Your task to perform on an android device: change the clock display to show seconds Image 0: 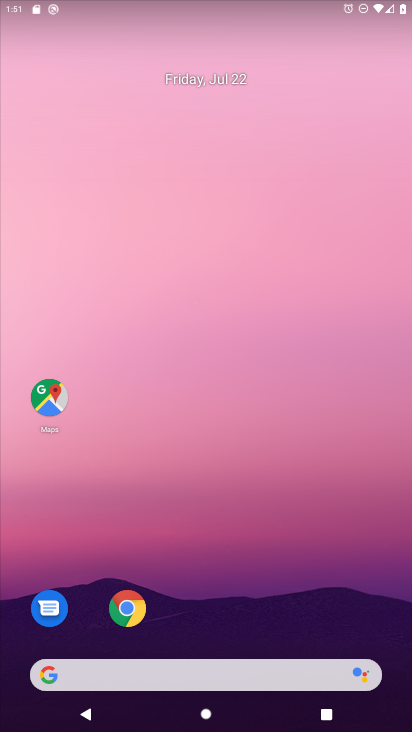
Step 0: drag from (337, 595) to (237, 24)
Your task to perform on an android device: change the clock display to show seconds Image 1: 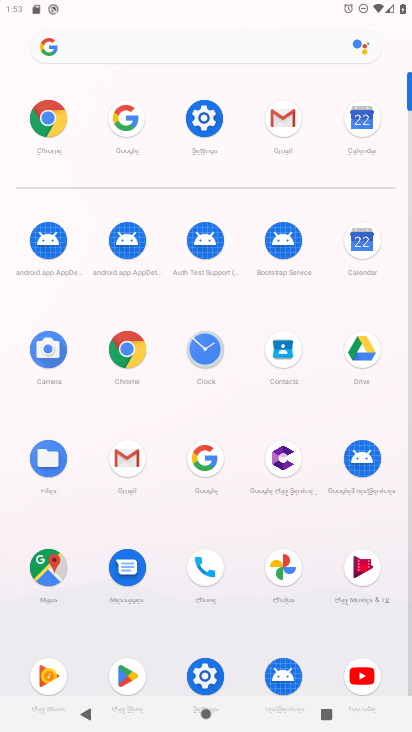
Step 1: click (202, 351)
Your task to perform on an android device: change the clock display to show seconds Image 2: 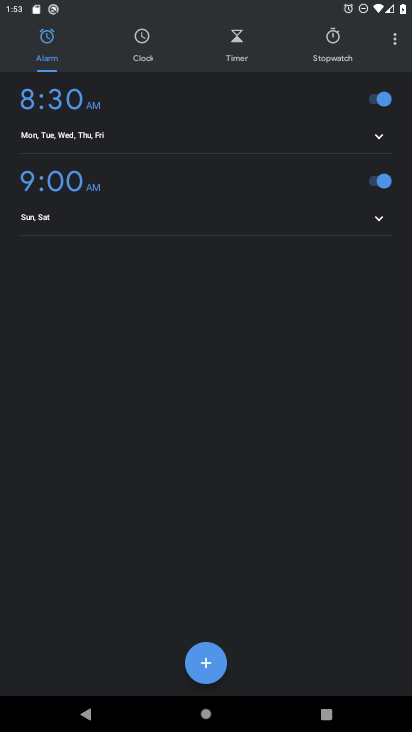
Step 2: click (392, 37)
Your task to perform on an android device: change the clock display to show seconds Image 3: 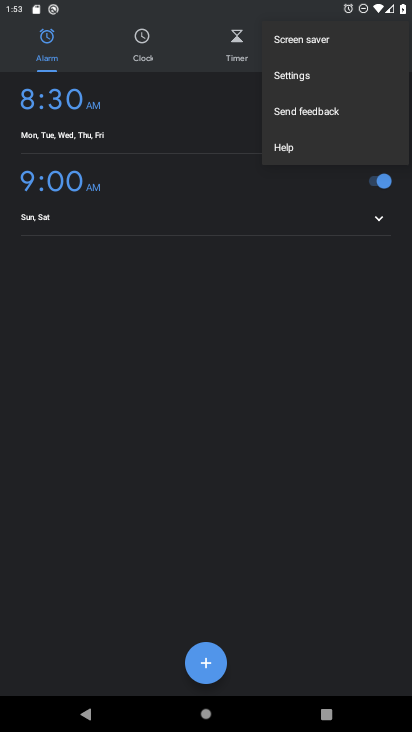
Step 3: click (315, 90)
Your task to perform on an android device: change the clock display to show seconds Image 4: 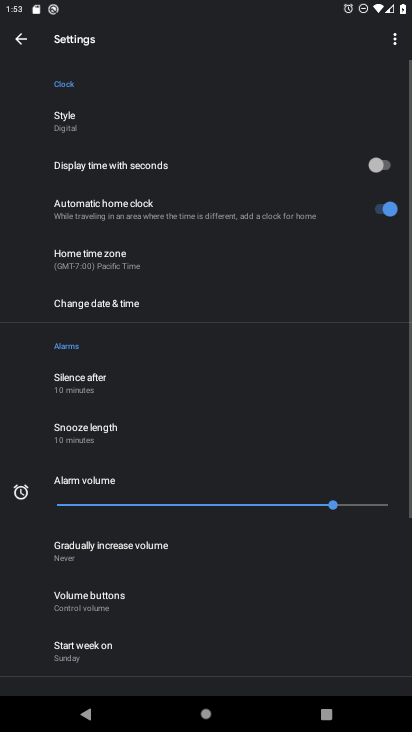
Step 4: click (345, 170)
Your task to perform on an android device: change the clock display to show seconds Image 5: 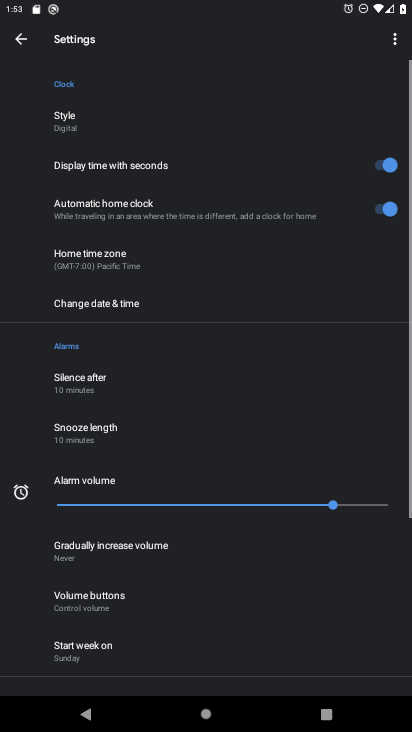
Step 5: task complete